Your task to perform on an android device: delete the emails in spam in the gmail app Image 0: 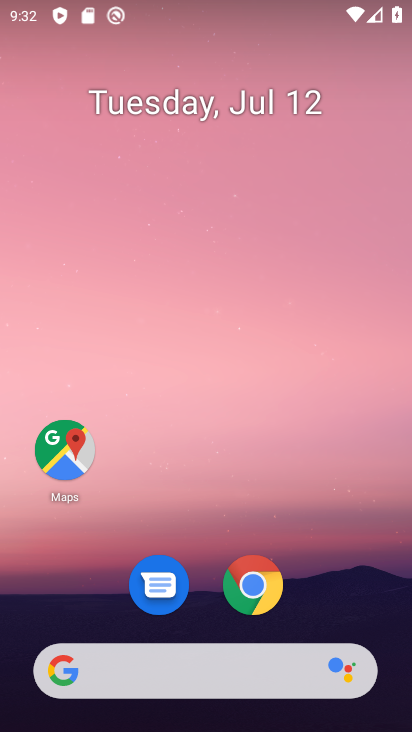
Step 0: drag from (196, 668) to (291, 189)
Your task to perform on an android device: delete the emails in spam in the gmail app Image 1: 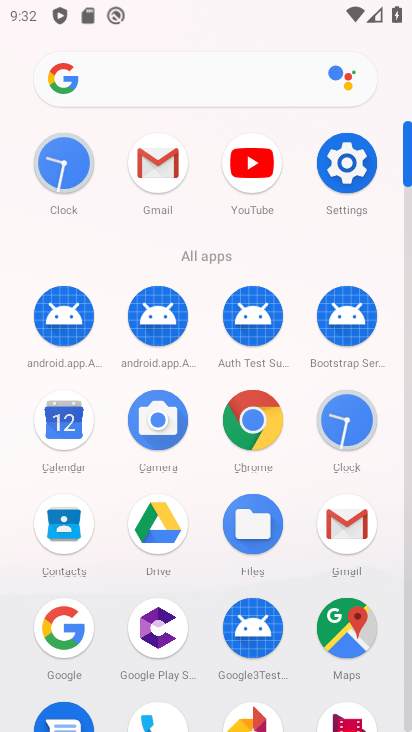
Step 1: click (155, 167)
Your task to perform on an android device: delete the emails in spam in the gmail app Image 2: 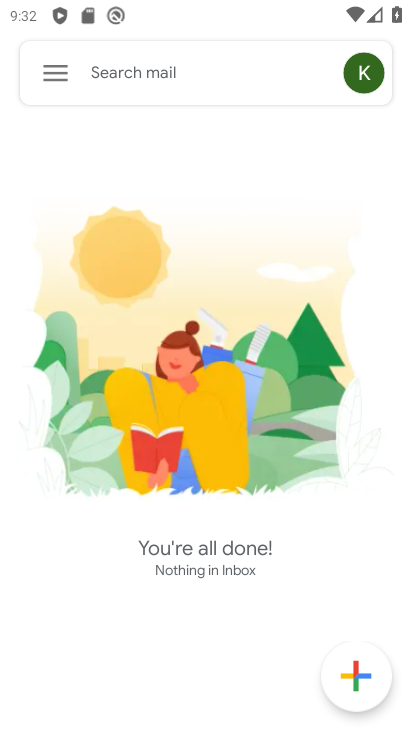
Step 2: click (55, 72)
Your task to perform on an android device: delete the emails in spam in the gmail app Image 3: 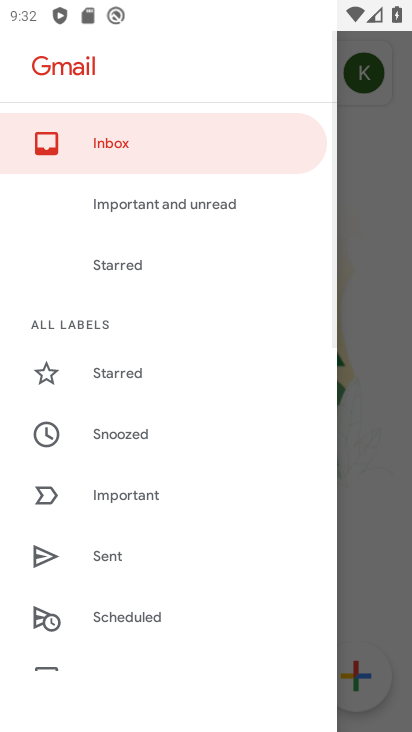
Step 3: drag from (171, 582) to (231, 114)
Your task to perform on an android device: delete the emails in spam in the gmail app Image 4: 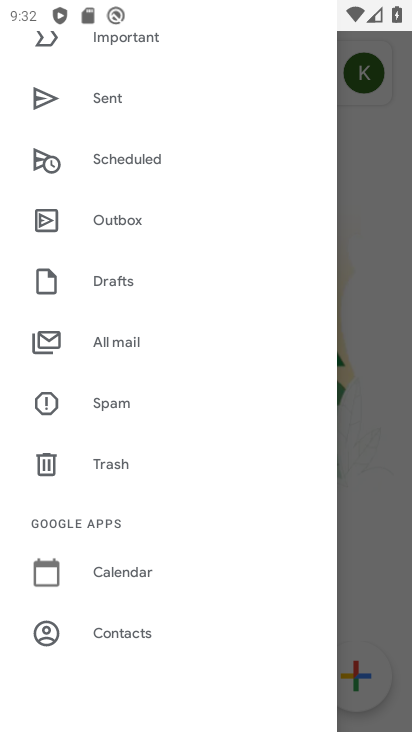
Step 4: click (117, 403)
Your task to perform on an android device: delete the emails in spam in the gmail app Image 5: 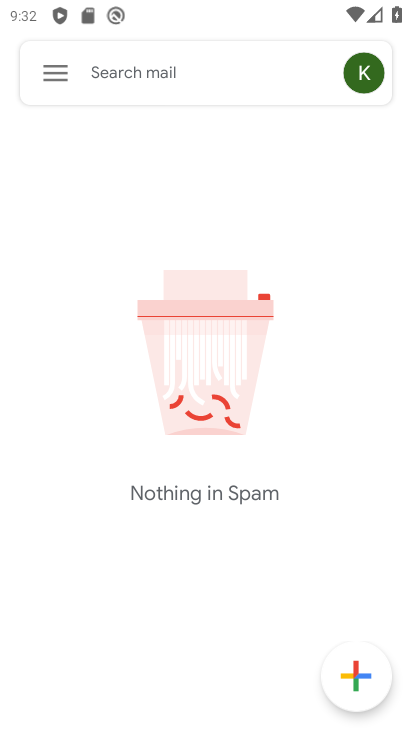
Step 5: task complete